Your task to perform on an android device: toggle airplane mode Image 0: 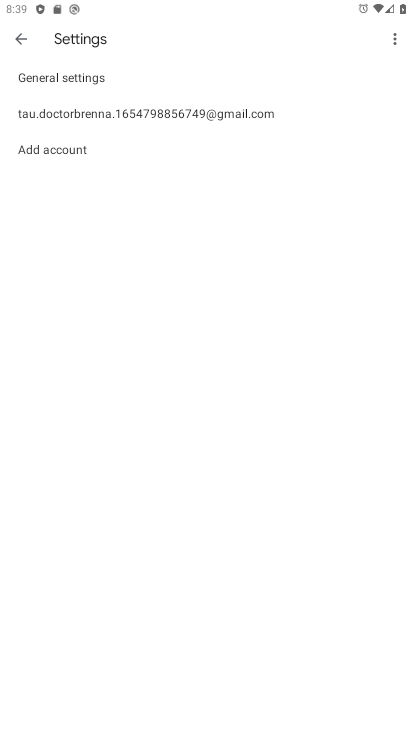
Step 0: press home button
Your task to perform on an android device: toggle airplane mode Image 1: 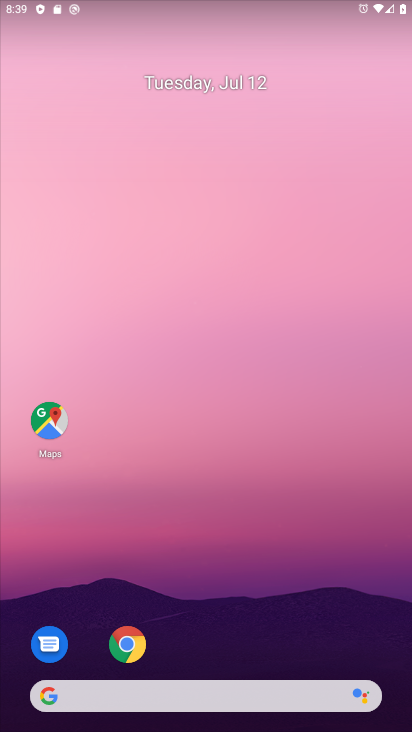
Step 1: drag from (32, 691) to (208, 252)
Your task to perform on an android device: toggle airplane mode Image 2: 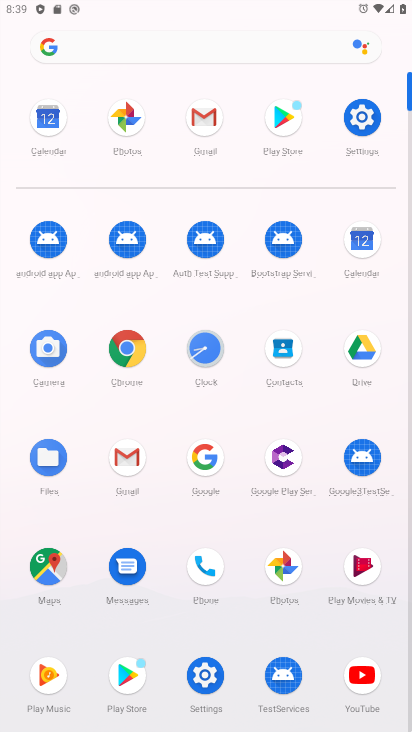
Step 2: click (204, 687)
Your task to perform on an android device: toggle airplane mode Image 3: 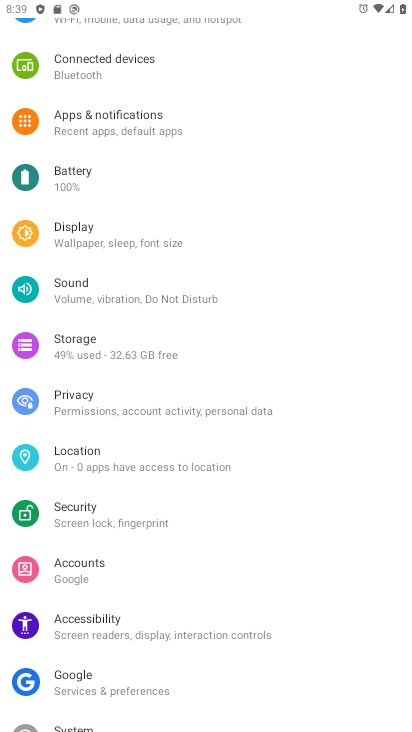
Step 3: drag from (280, 9) to (296, 395)
Your task to perform on an android device: toggle airplane mode Image 4: 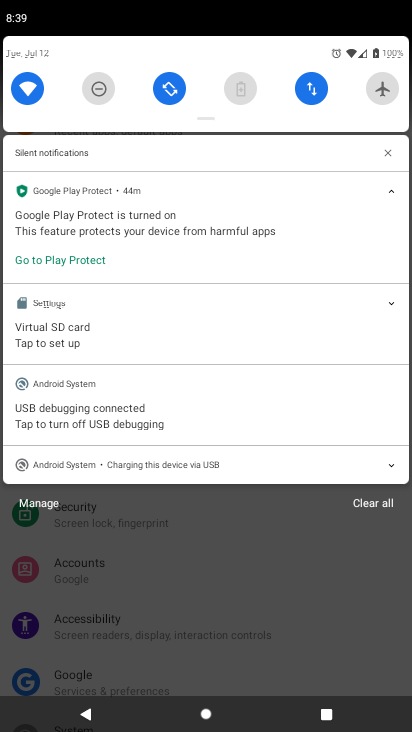
Step 4: click (273, 547)
Your task to perform on an android device: toggle airplane mode Image 5: 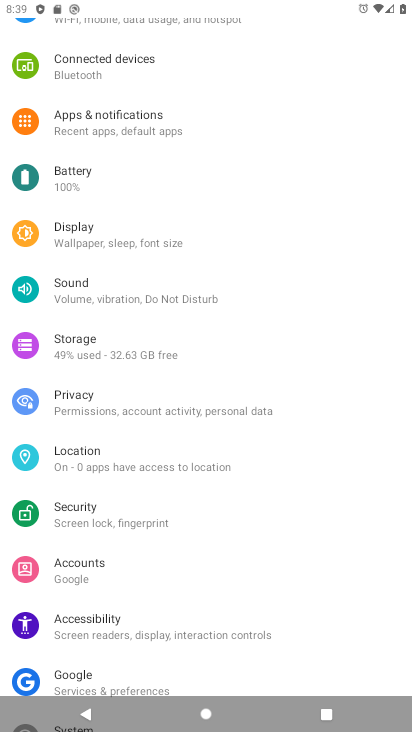
Step 5: drag from (204, 53) to (189, 722)
Your task to perform on an android device: toggle airplane mode Image 6: 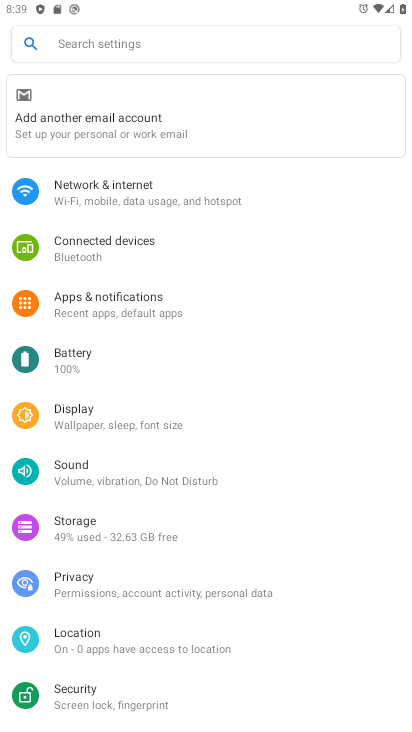
Step 6: click (109, 197)
Your task to perform on an android device: toggle airplane mode Image 7: 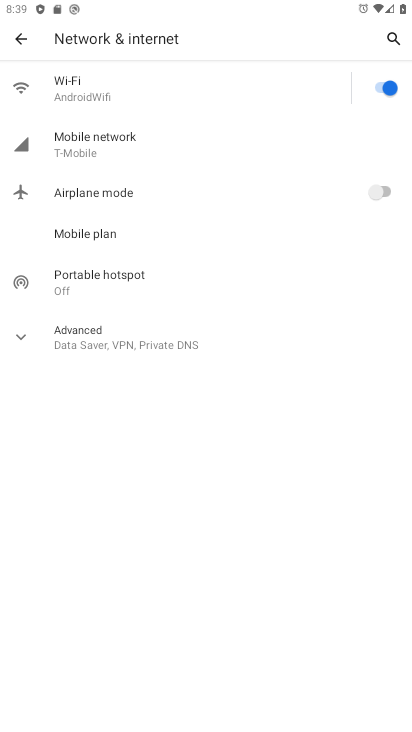
Step 7: click (369, 196)
Your task to perform on an android device: toggle airplane mode Image 8: 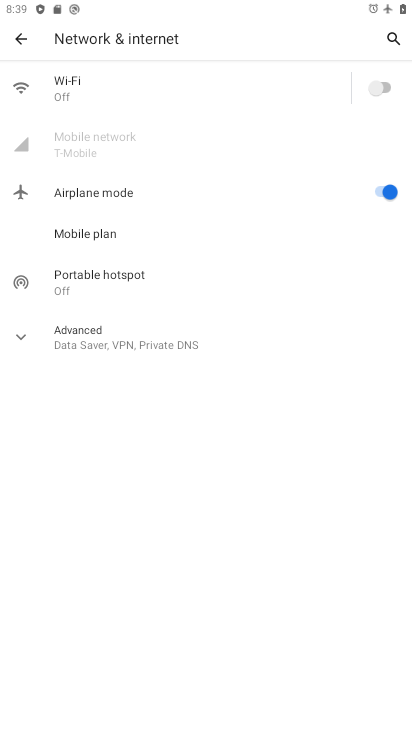
Step 8: task complete